Your task to perform on an android device: Open Youtube and go to "Your channel" Image 0: 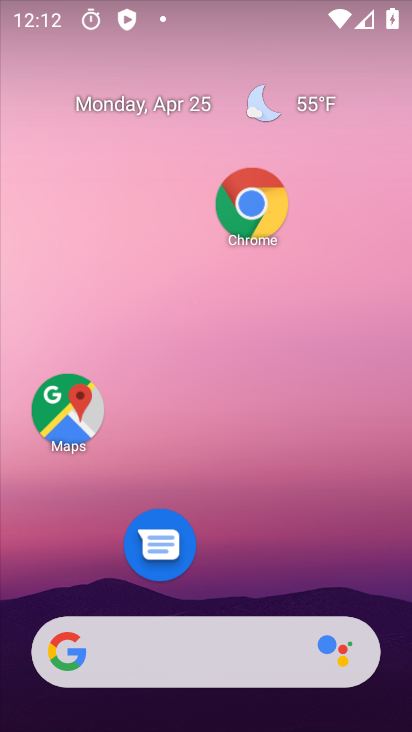
Step 0: drag from (246, 687) to (410, 260)
Your task to perform on an android device: Open Youtube and go to "Your channel" Image 1: 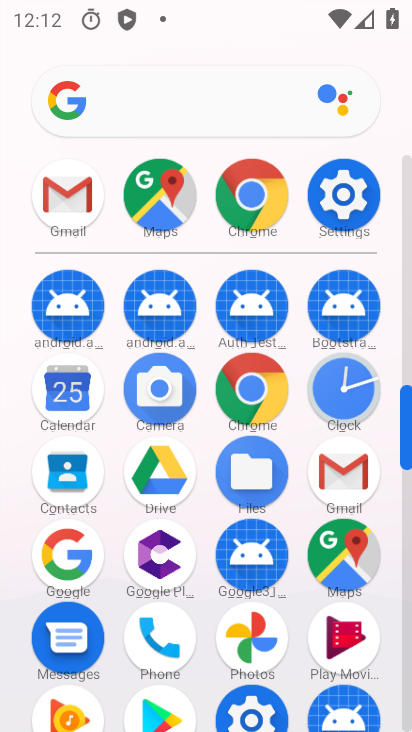
Step 1: drag from (197, 600) to (244, 454)
Your task to perform on an android device: Open Youtube and go to "Your channel" Image 2: 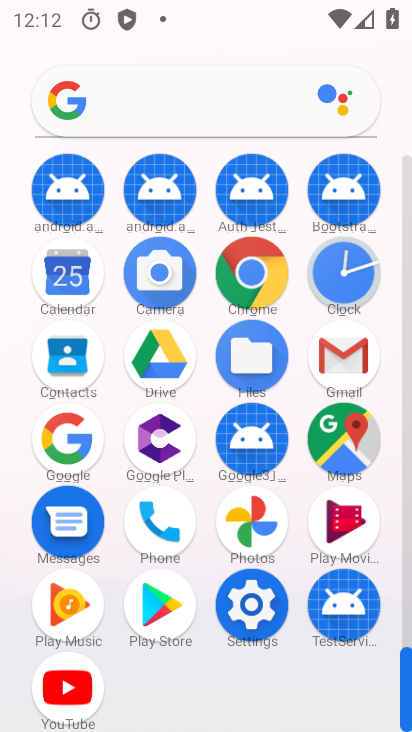
Step 2: click (75, 686)
Your task to perform on an android device: Open Youtube and go to "Your channel" Image 3: 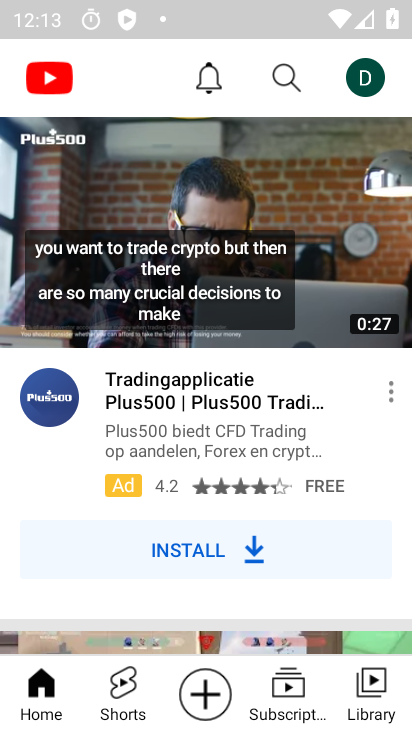
Step 3: click (369, 77)
Your task to perform on an android device: Open Youtube and go to "Your channel" Image 4: 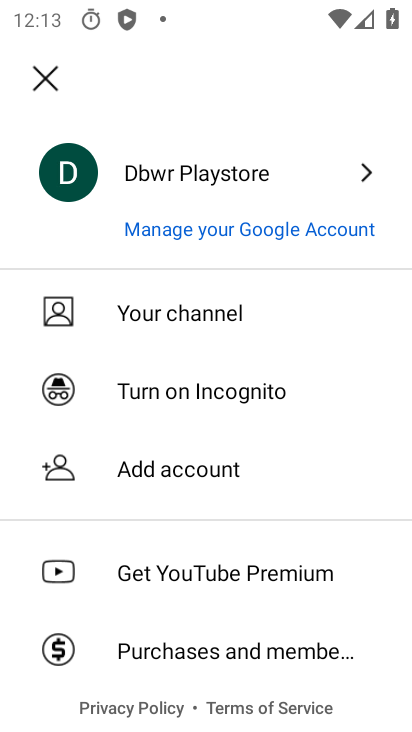
Step 4: click (178, 315)
Your task to perform on an android device: Open Youtube and go to "Your channel" Image 5: 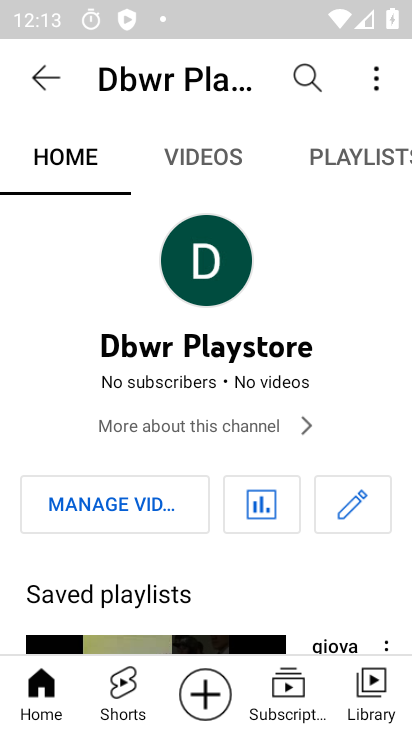
Step 5: task complete